Your task to perform on an android device: add a label to a message in the gmail app Image 0: 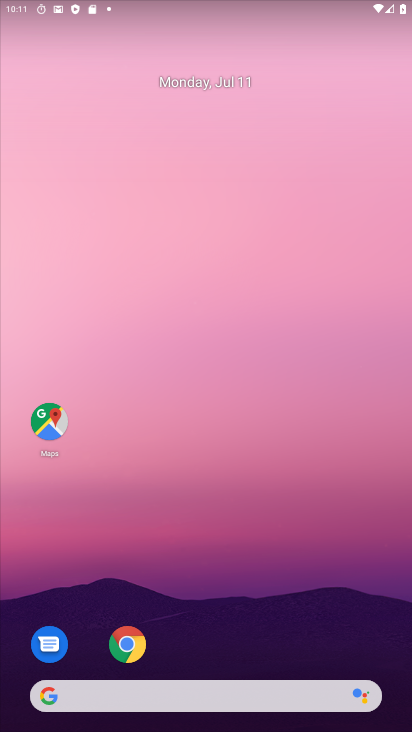
Step 0: drag from (235, 643) to (252, 159)
Your task to perform on an android device: add a label to a message in the gmail app Image 1: 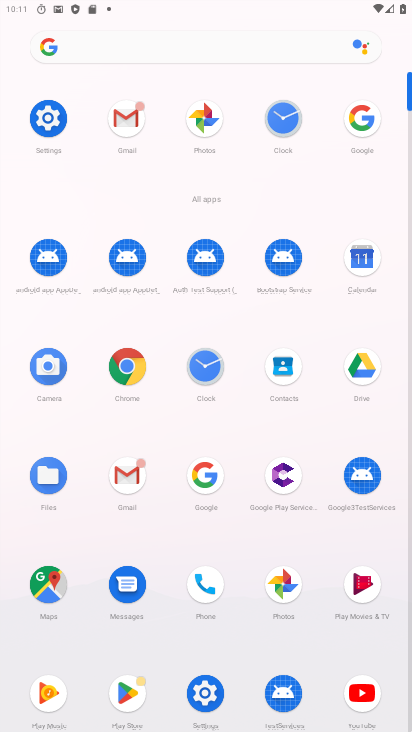
Step 1: click (125, 116)
Your task to perform on an android device: add a label to a message in the gmail app Image 2: 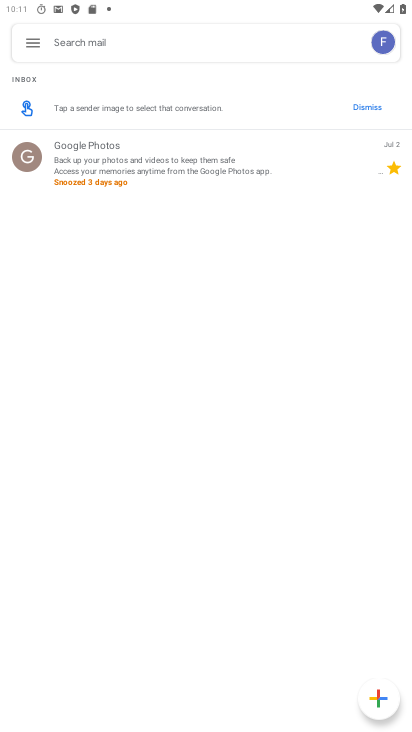
Step 2: click (184, 156)
Your task to perform on an android device: add a label to a message in the gmail app Image 3: 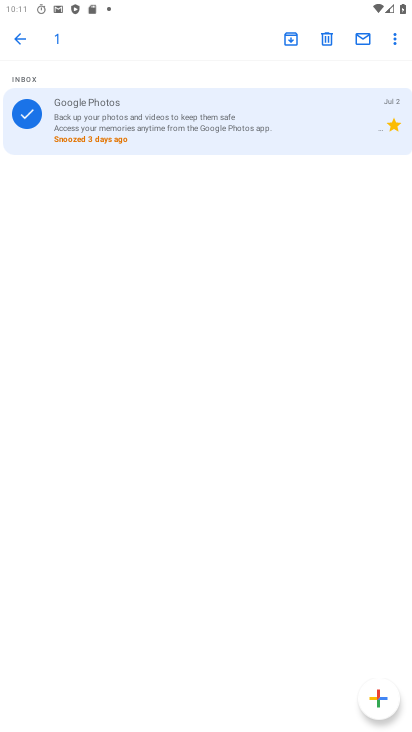
Step 3: click (390, 42)
Your task to perform on an android device: add a label to a message in the gmail app Image 4: 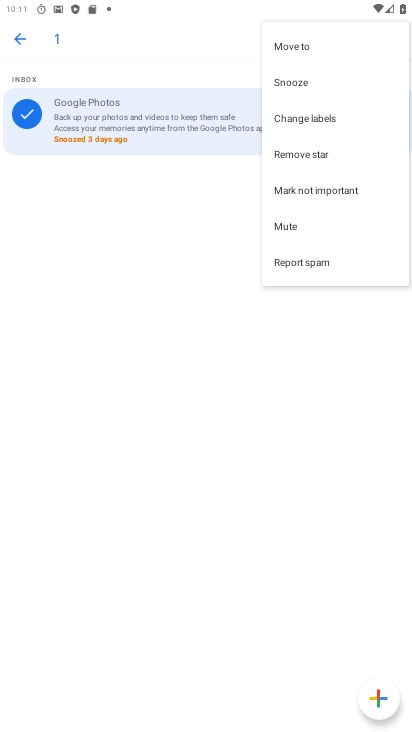
Step 4: click (298, 119)
Your task to perform on an android device: add a label to a message in the gmail app Image 5: 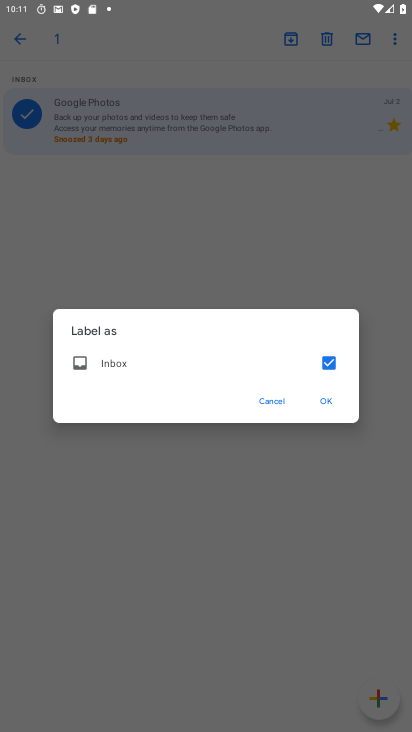
Step 5: click (330, 360)
Your task to perform on an android device: add a label to a message in the gmail app Image 6: 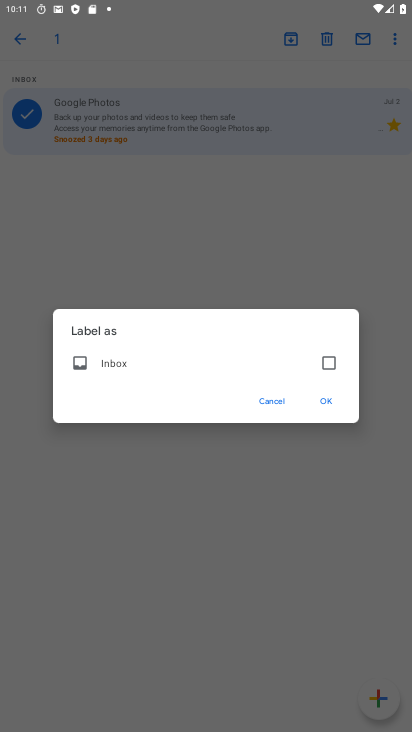
Step 6: click (327, 401)
Your task to perform on an android device: add a label to a message in the gmail app Image 7: 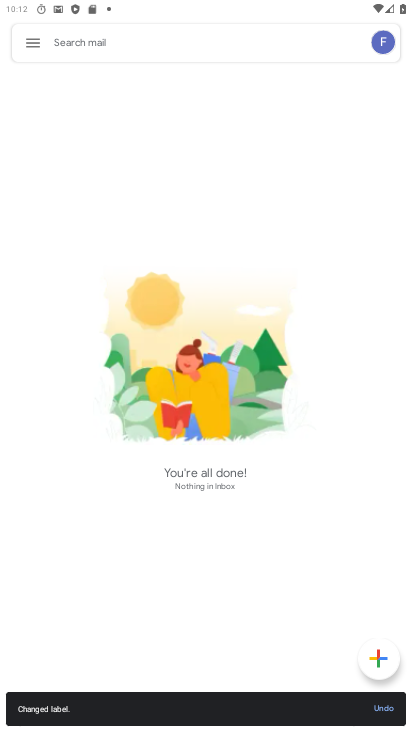
Step 7: task complete